Your task to perform on an android device: install app "Airtel Thanks" Image 0: 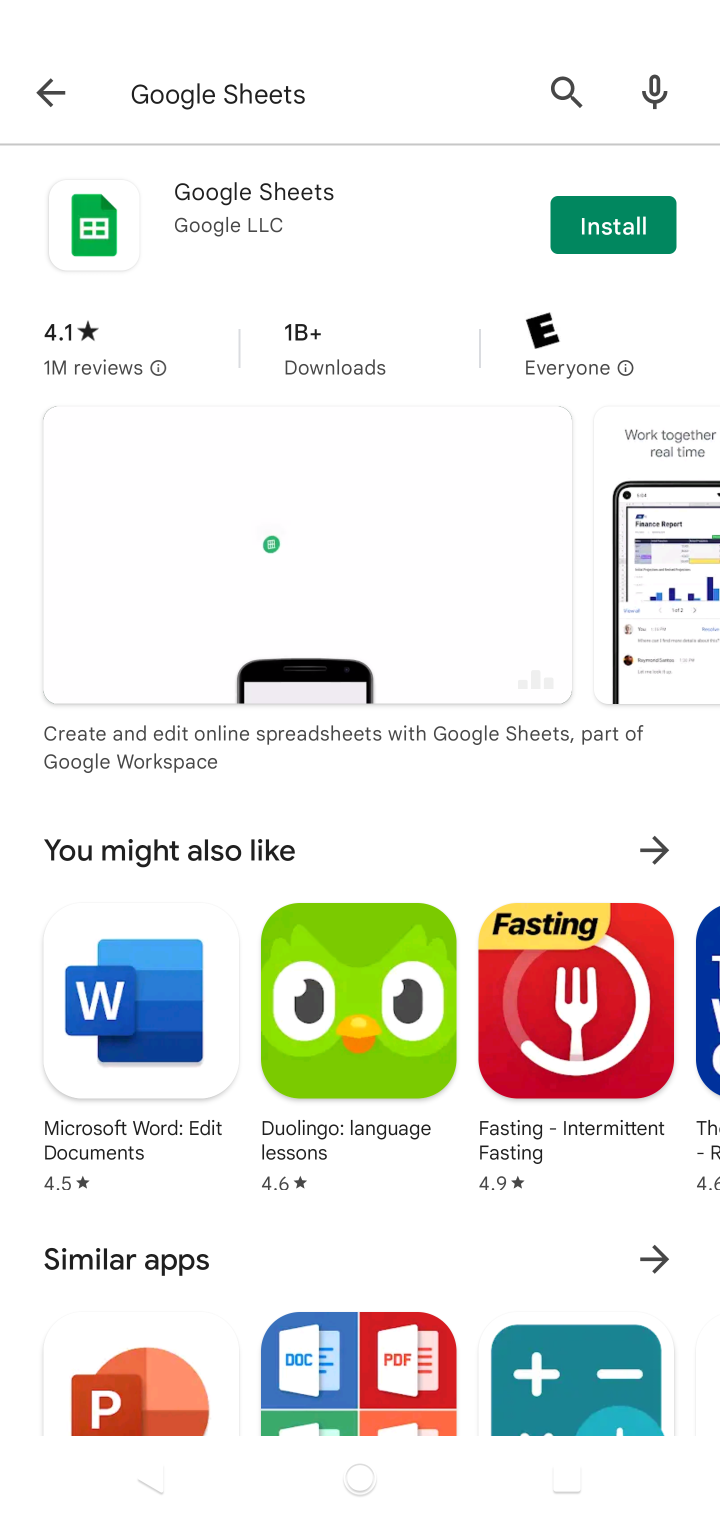
Step 0: press home button
Your task to perform on an android device: install app "Airtel Thanks" Image 1: 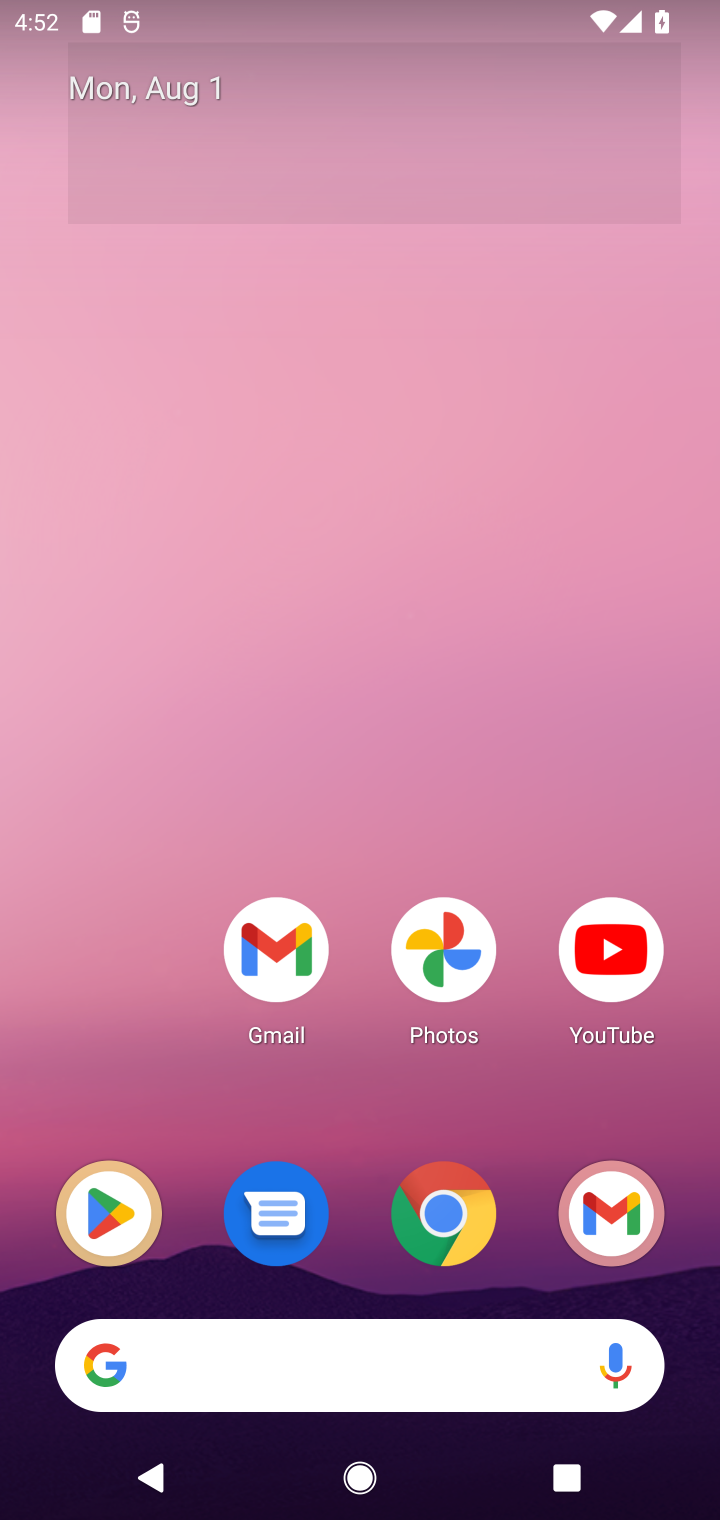
Step 1: drag from (505, 1015) to (509, 83)
Your task to perform on an android device: install app "Airtel Thanks" Image 2: 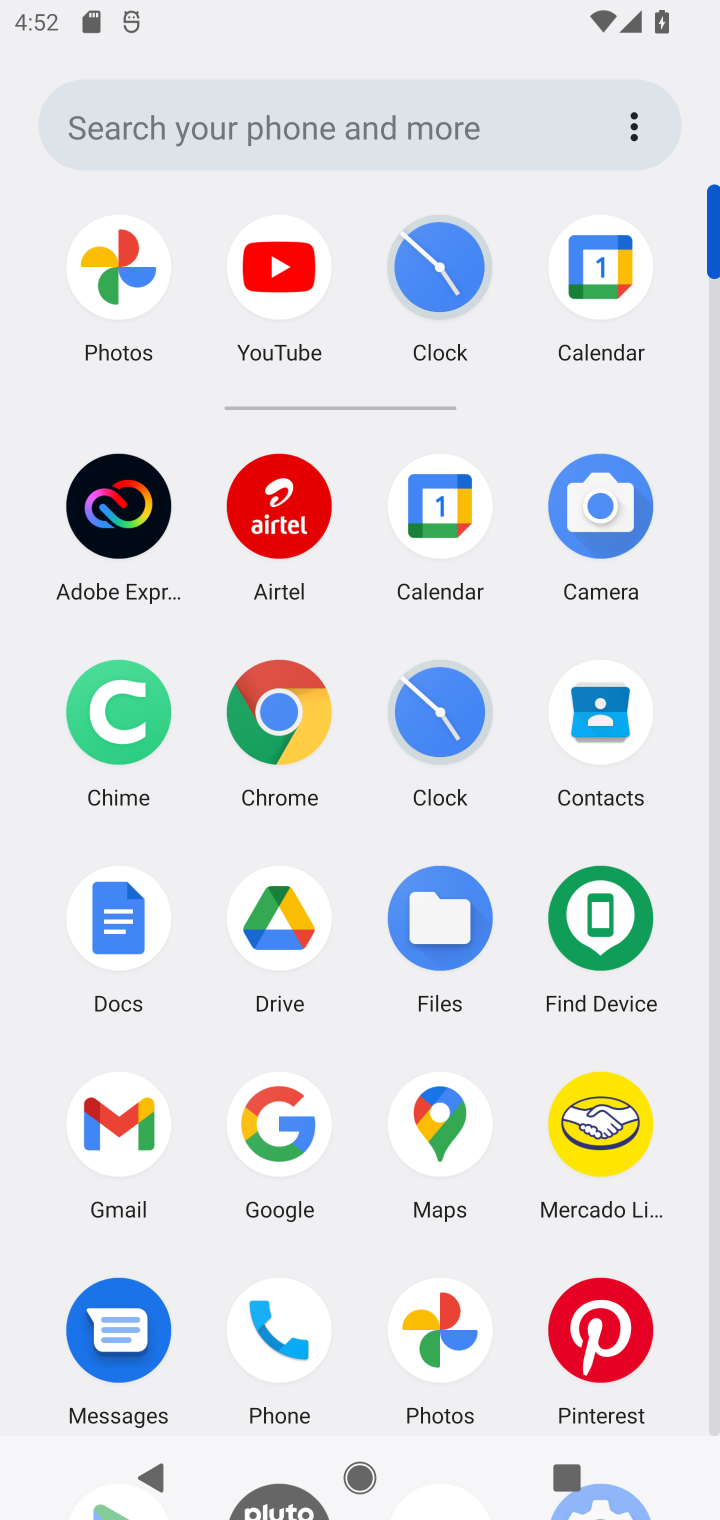
Step 2: drag from (348, 1174) to (384, 432)
Your task to perform on an android device: install app "Airtel Thanks" Image 3: 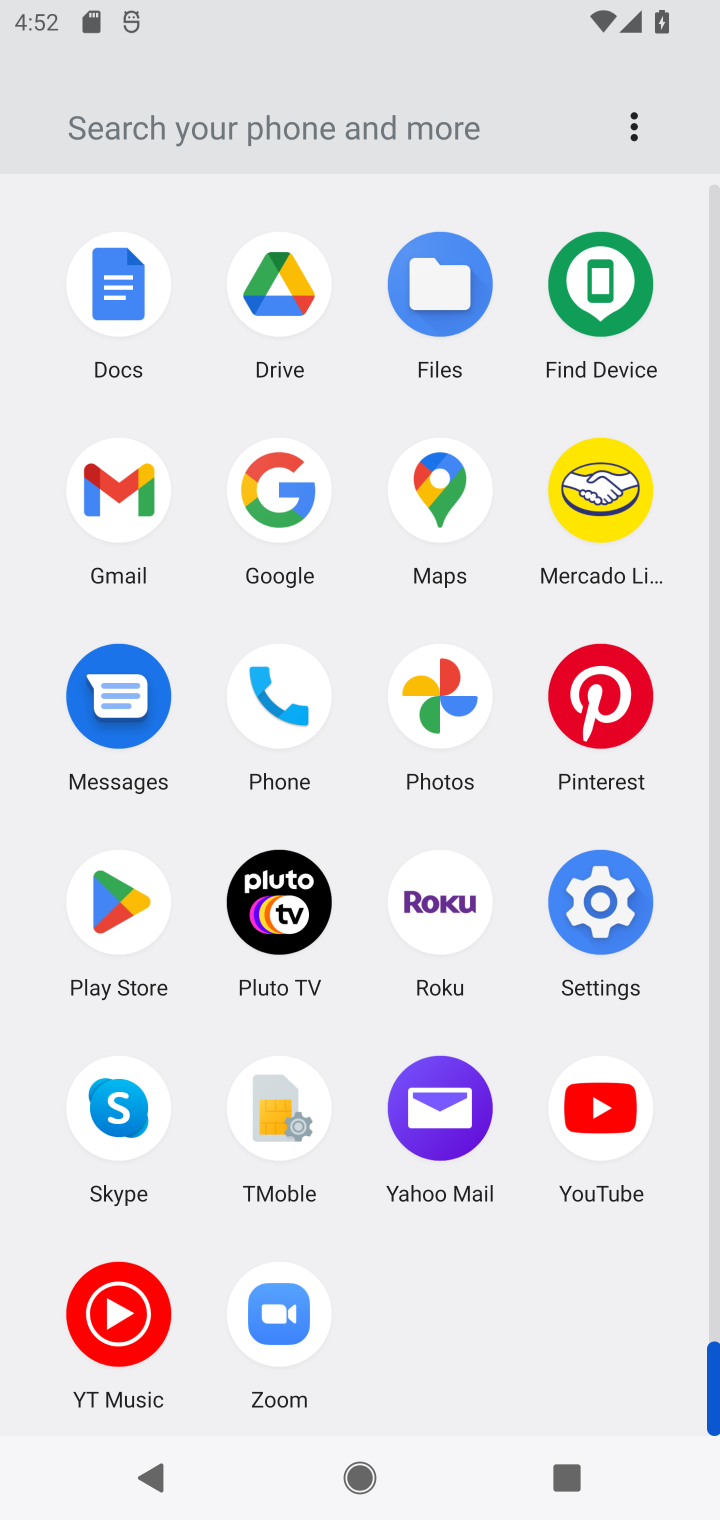
Step 3: click (98, 918)
Your task to perform on an android device: install app "Airtel Thanks" Image 4: 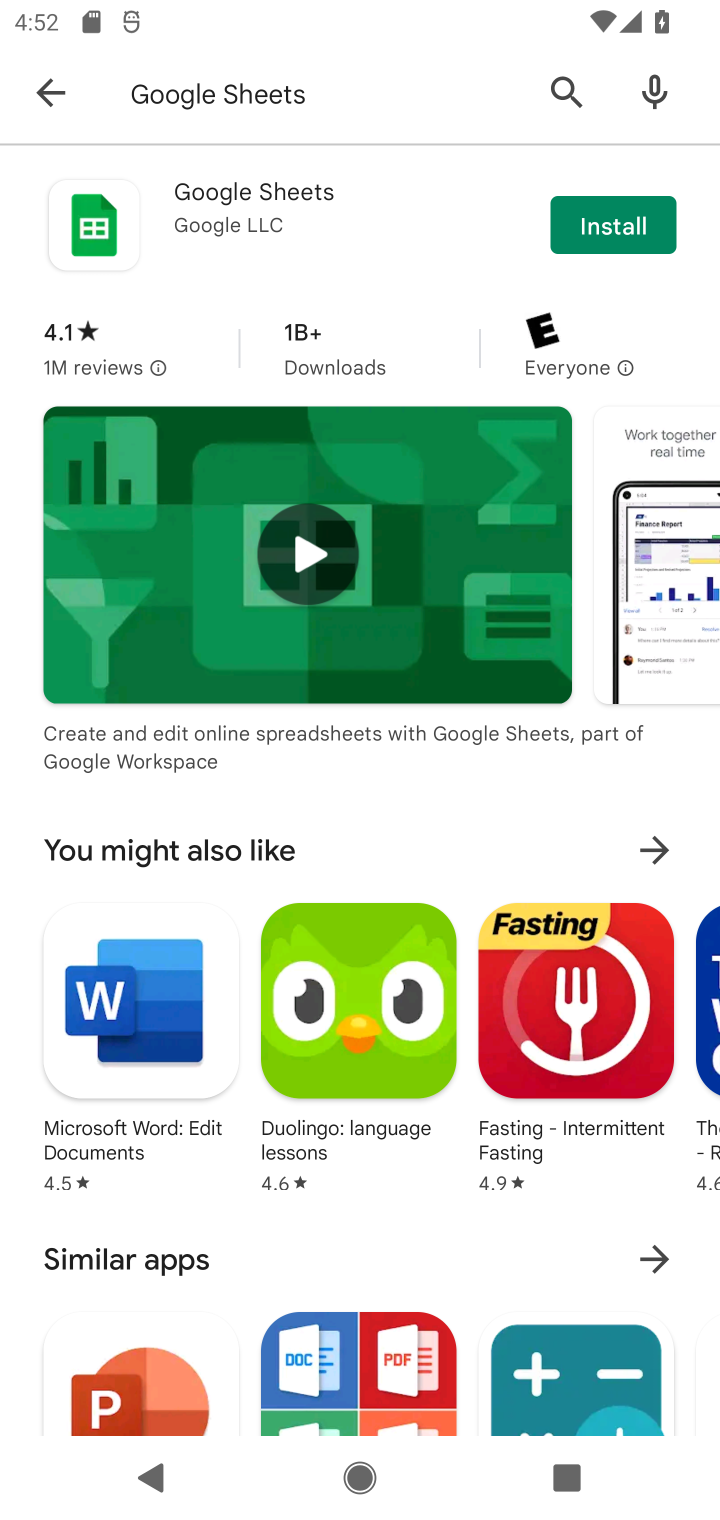
Step 4: click (406, 98)
Your task to perform on an android device: install app "Airtel Thanks" Image 5: 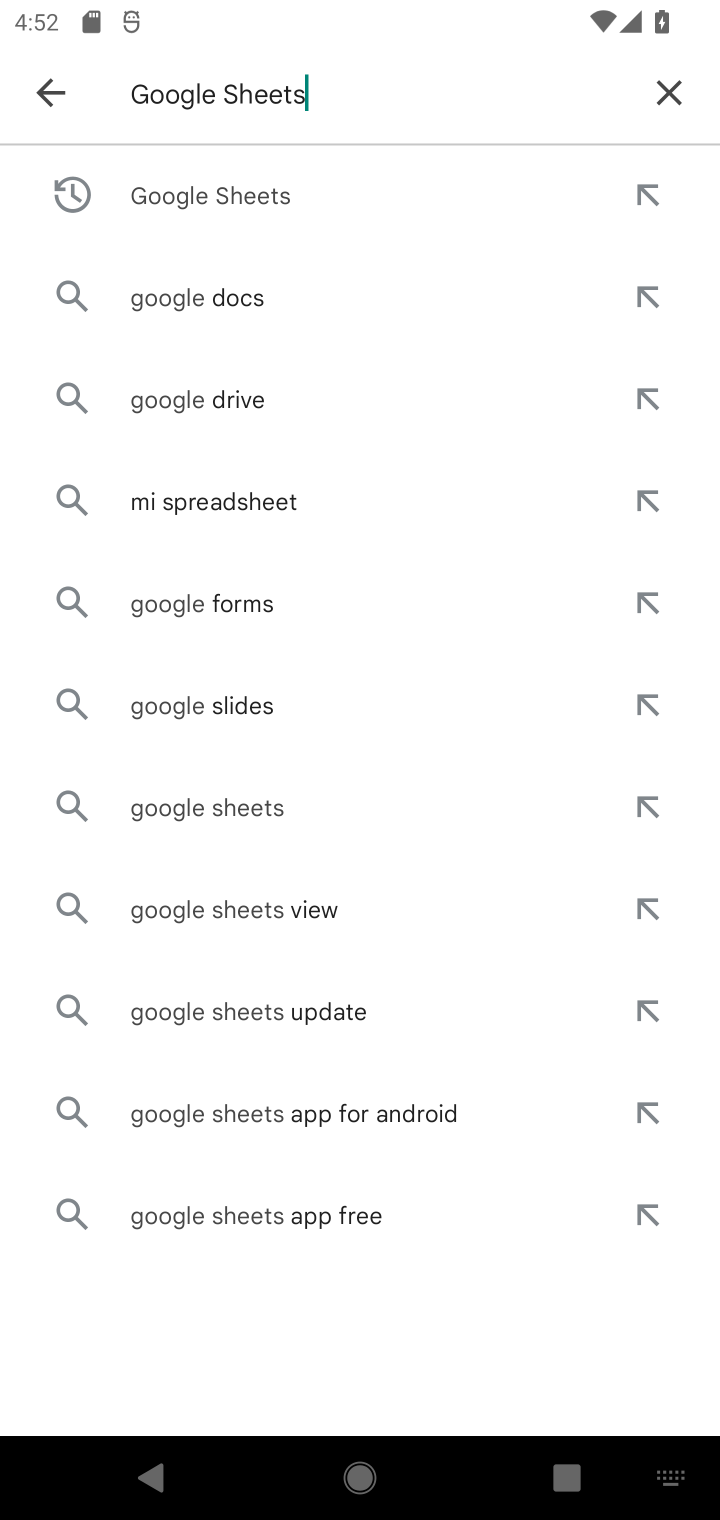
Step 5: click (666, 91)
Your task to perform on an android device: install app "Airtel Thanks" Image 6: 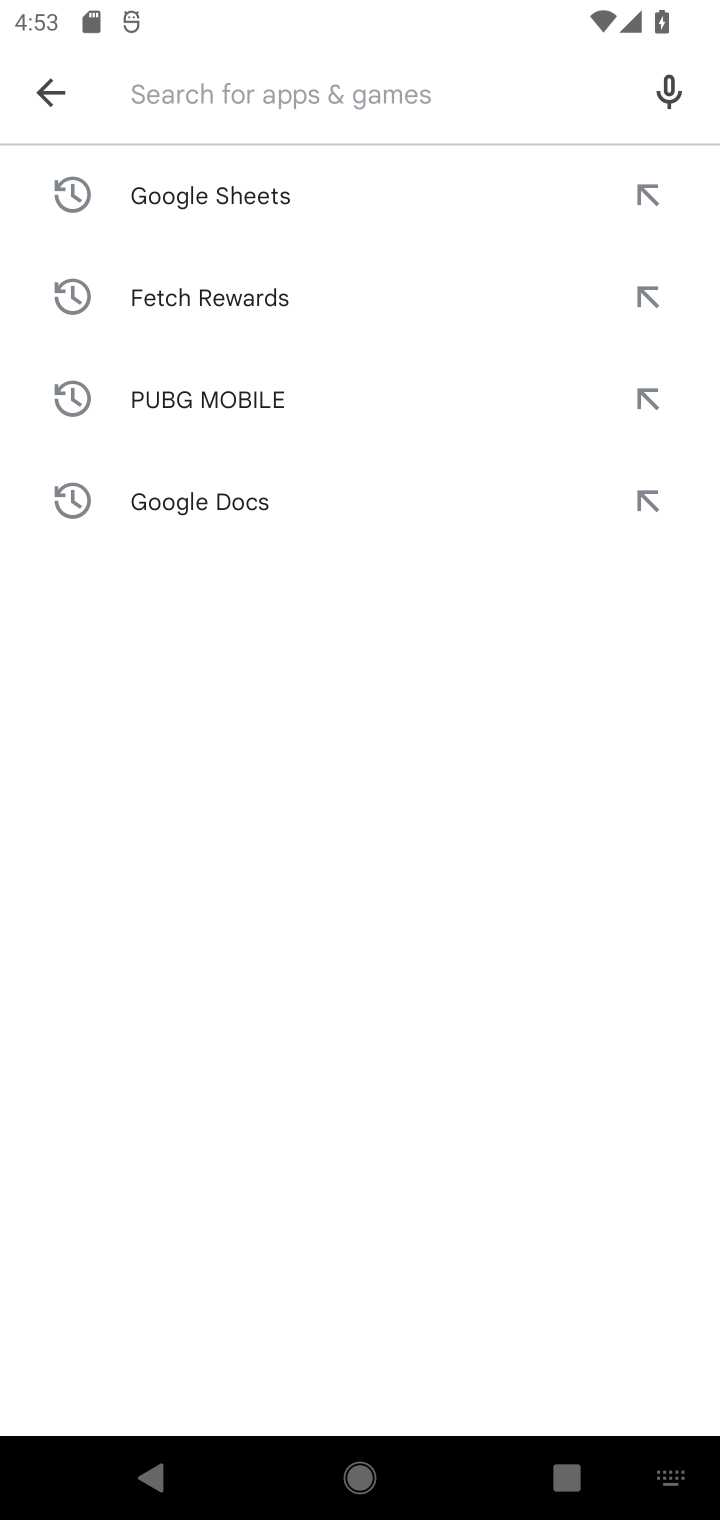
Step 6: type "Airtel Thanks"
Your task to perform on an android device: install app "Airtel Thanks" Image 7: 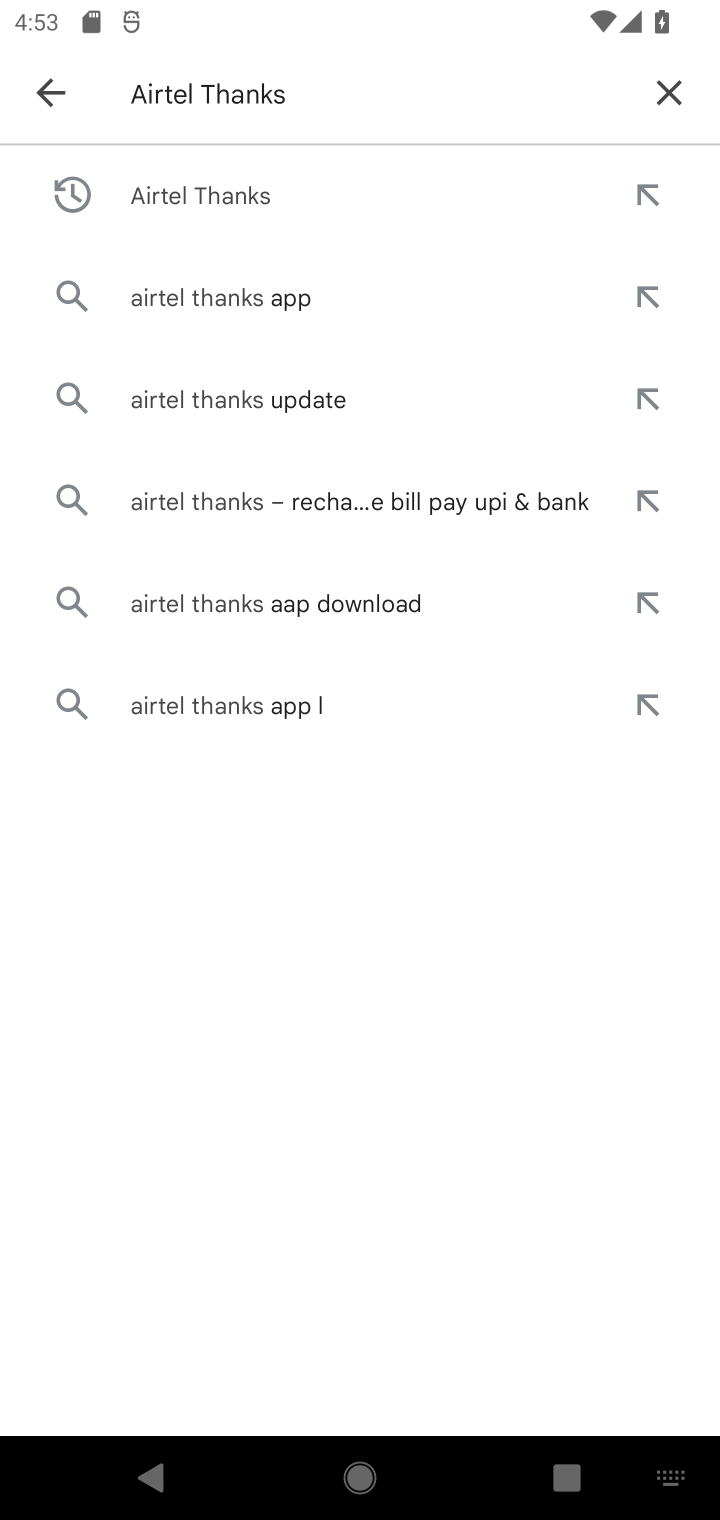
Step 7: press enter
Your task to perform on an android device: install app "Airtel Thanks" Image 8: 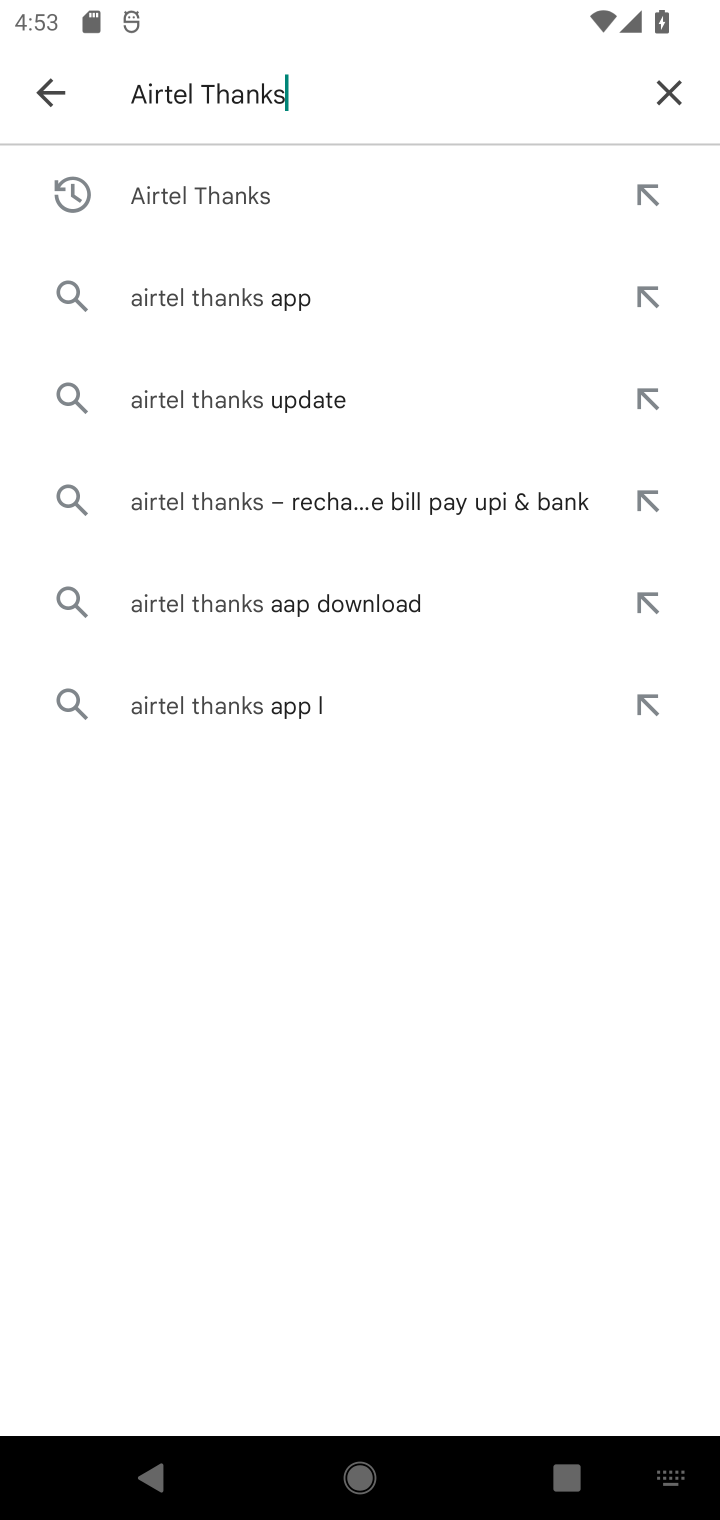
Step 8: press enter
Your task to perform on an android device: install app "Airtel Thanks" Image 9: 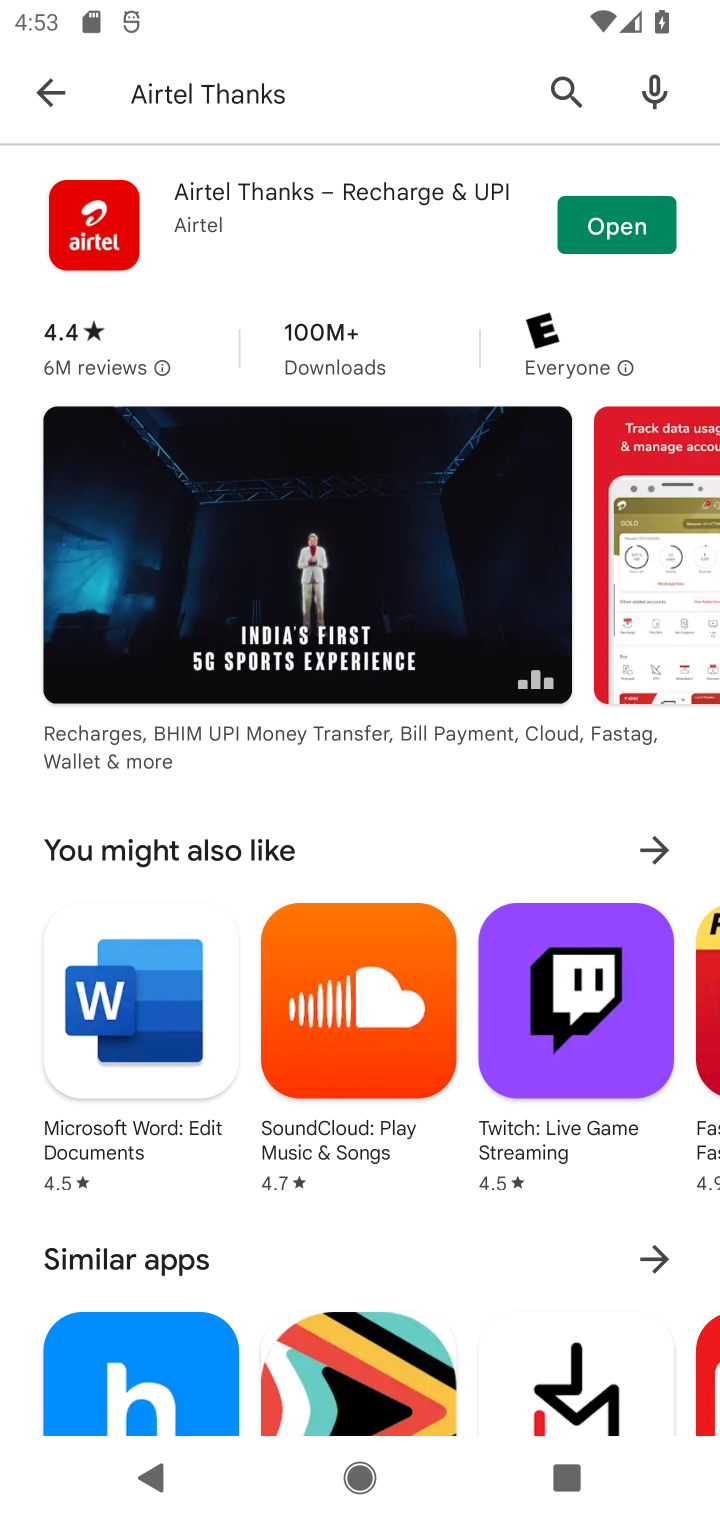
Step 9: task complete